Your task to perform on an android device: Search for the new Nike Air Jordan 33 on Nike.com Image 0: 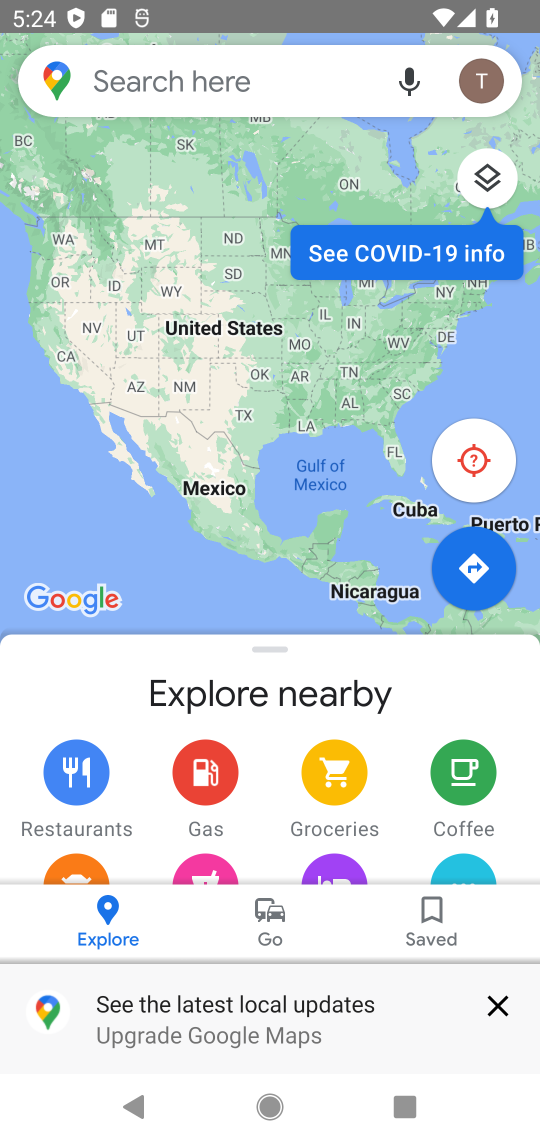
Step 0: press home button
Your task to perform on an android device: Search for the new Nike Air Jordan 33 on Nike.com Image 1: 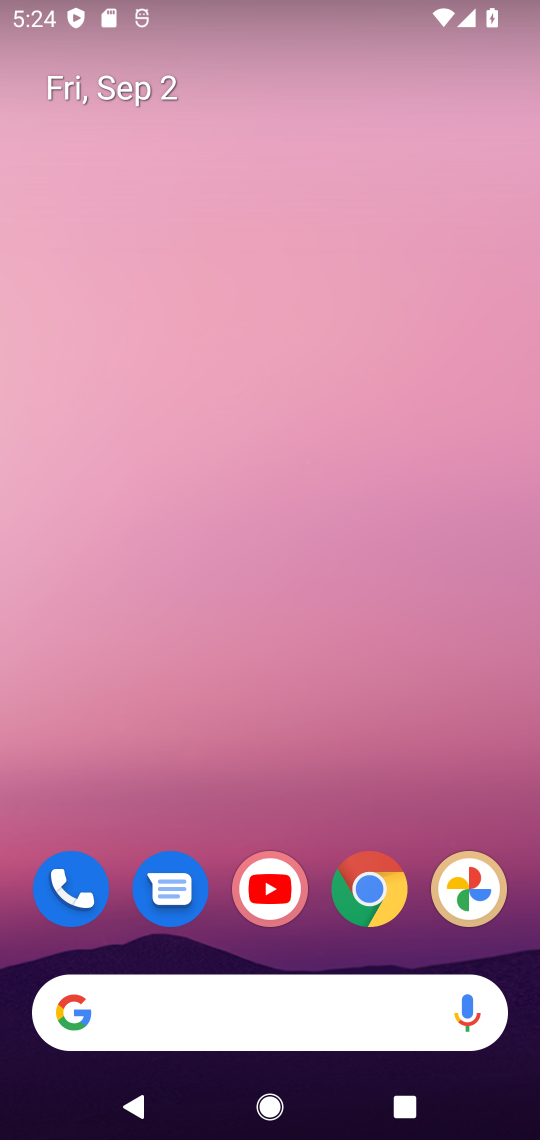
Step 1: click (375, 865)
Your task to perform on an android device: Search for the new Nike Air Jordan 33 on Nike.com Image 2: 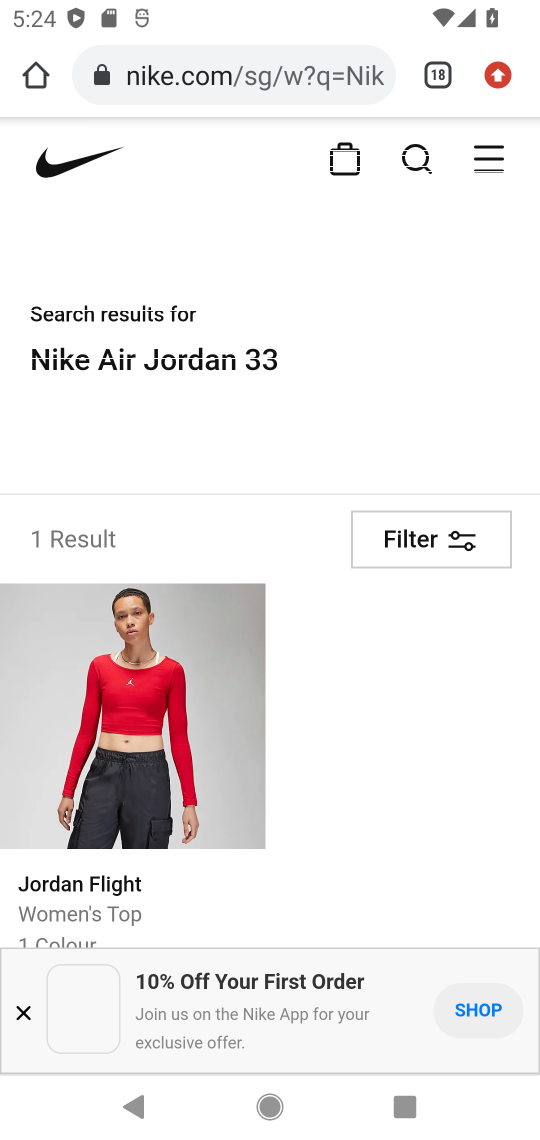
Step 2: click (395, 161)
Your task to perform on an android device: Search for the new Nike Air Jordan 33 on Nike.com Image 3: 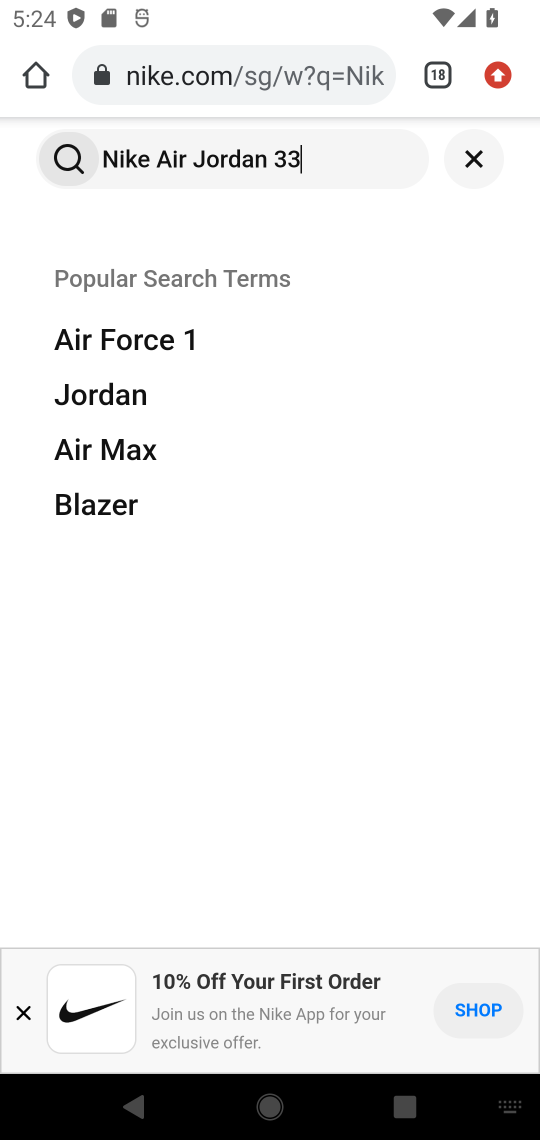
Step 3: click (71, 149)
Your task to perform on an android device: Search for the new Nike Air Jordan 33 on Nike.com Image 4: 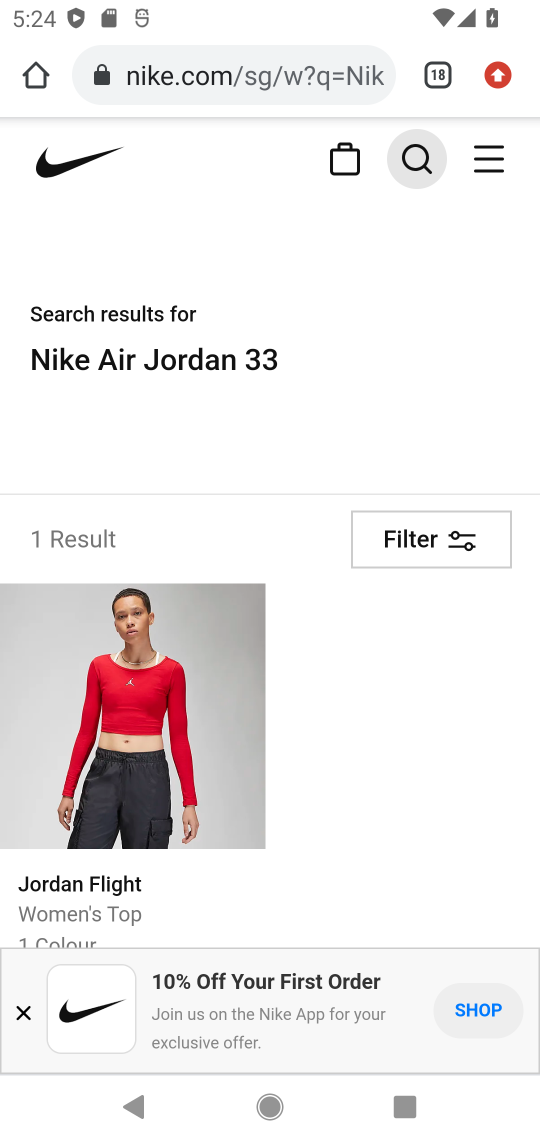
Step 4: task complete